Your task to perform on an android device: What's the weather going to be this weekend? Image 0: 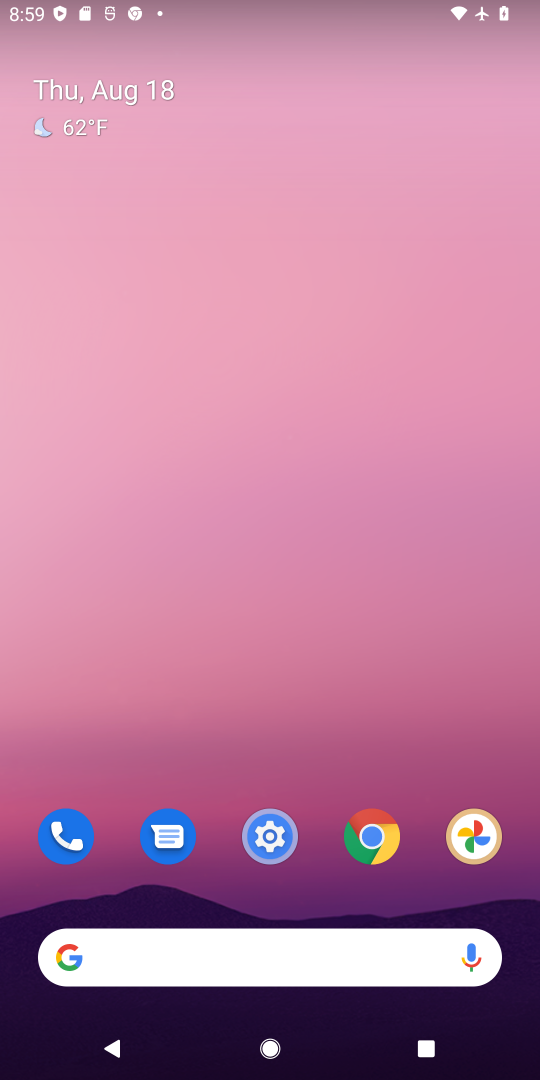
Step 0: click (96, 89)
Your task to perform on an android device: What's the weather going to be this weekend? Image 1: 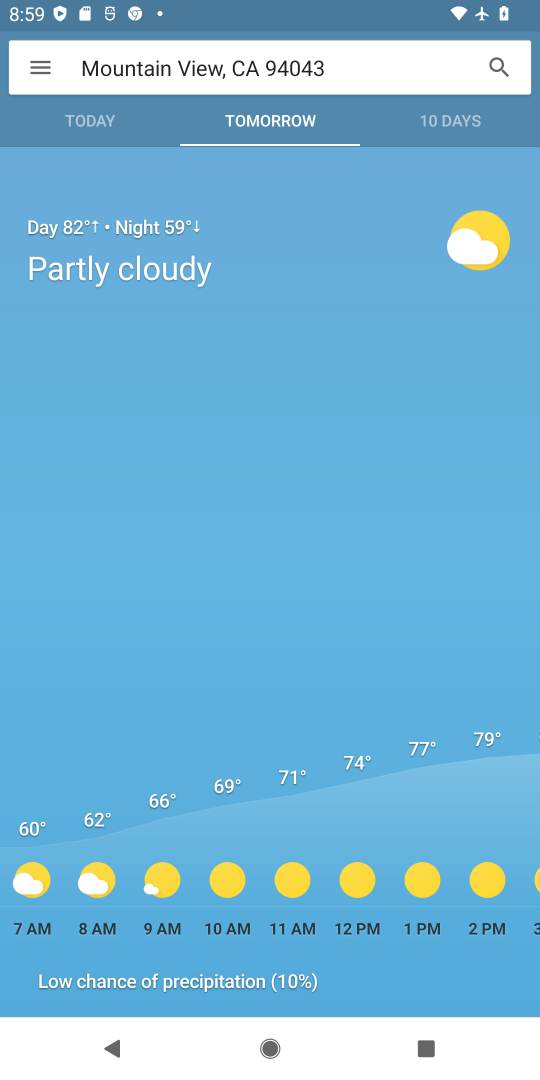
Step 1: click (468, 118)
Your task to perform on an android device: What's the weather going to be this weekend? Image 2: 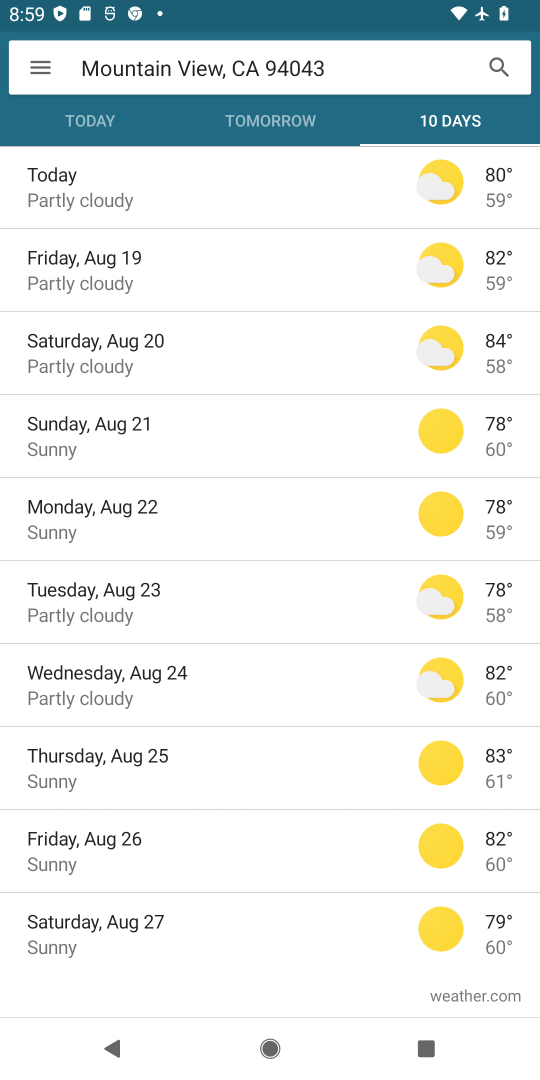
Step 2: click (92, 841)
Your task to perform on an android device: What's the weather going to be this weekend? Image 3: 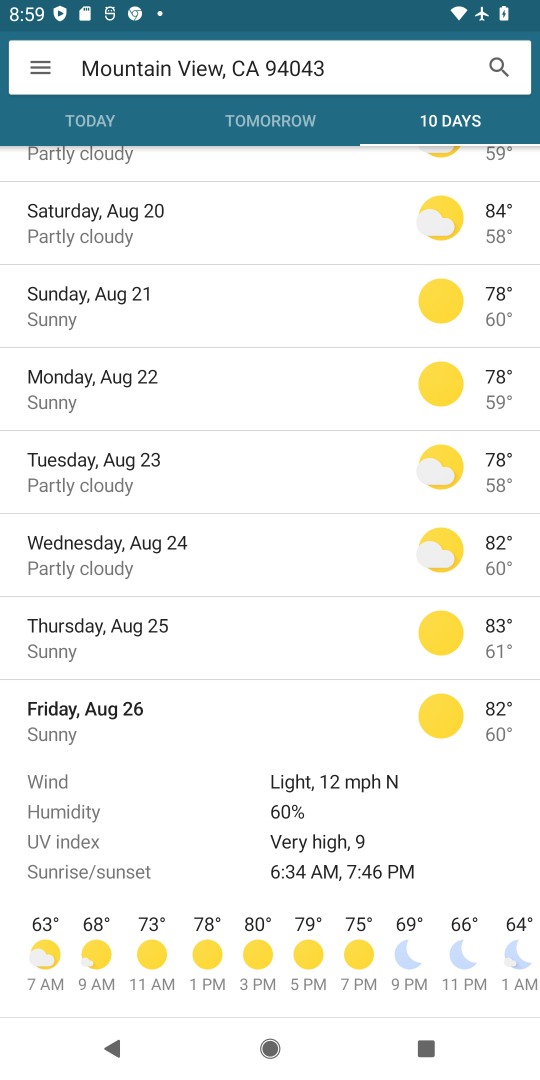
Step 3: click (95, 179)
Your task to perform on an android device: What's the weather going to be this weekend? Image 4: 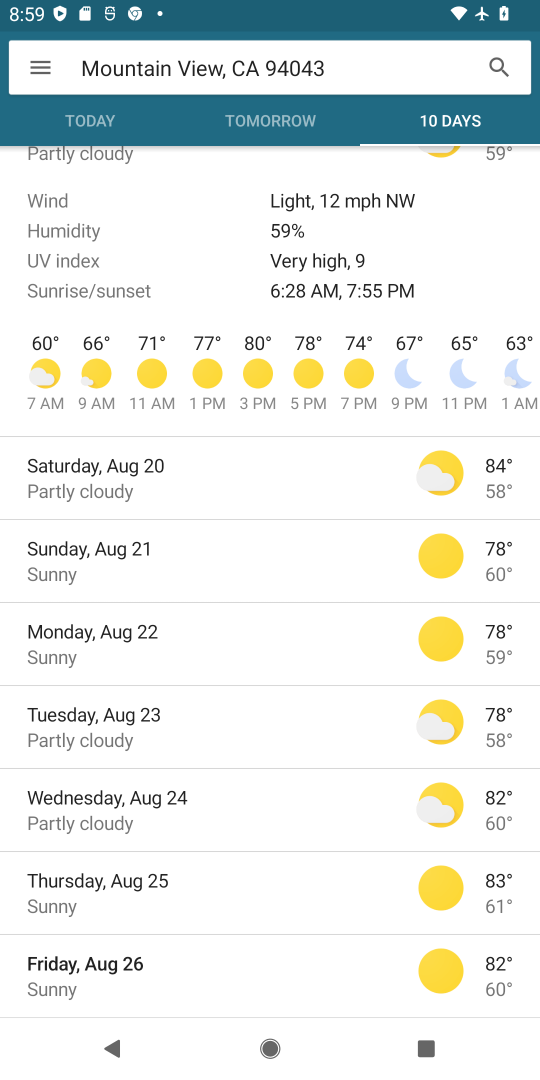
Step 4: click (80, 469)
Your task to perform on an android device: What's the weather going to be this weekend? Image 5: 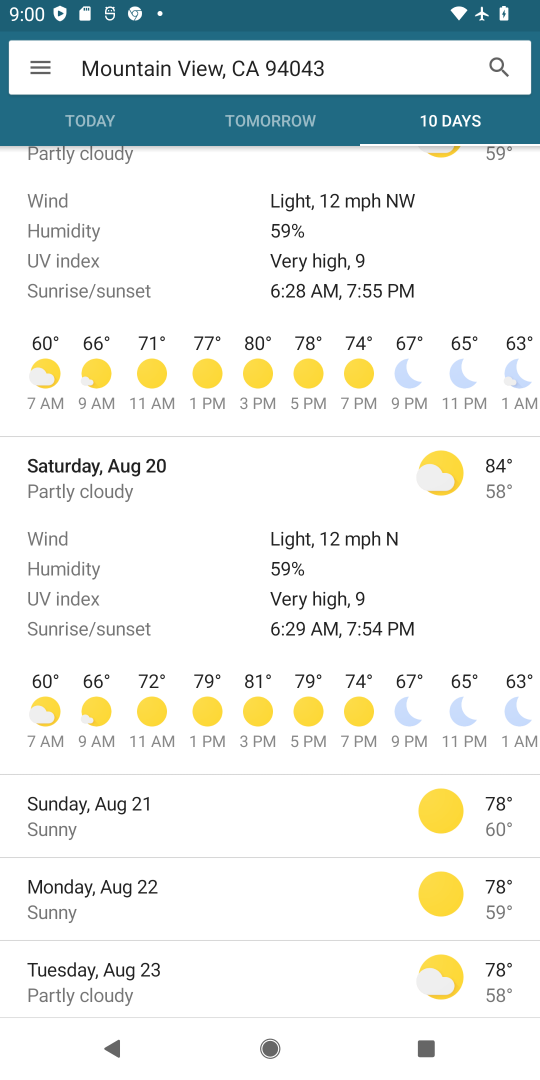
Step 5: task complete